Your task to perform on an android device: add a label to a message in the gmail app Image 0: 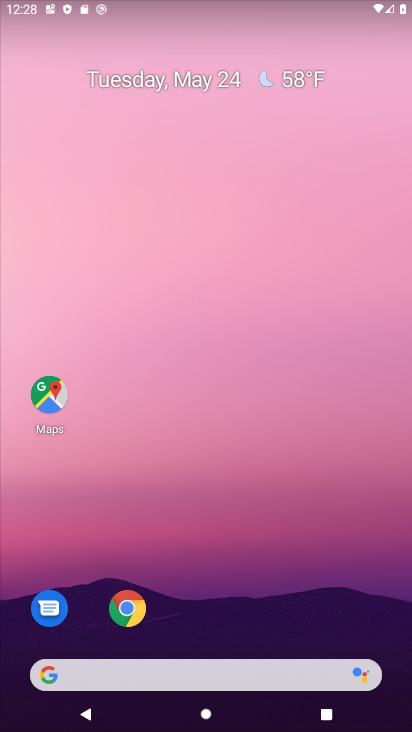
Step 0: press home button
Your task to perform on an android device: add a label to a message in the gmail app Image 1: 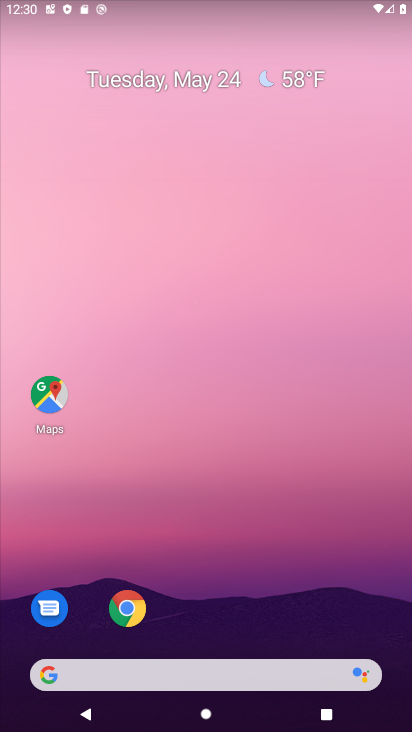
Step 1: drag from (247, 692) to (266, 172)
Your task to perform on an android device: add a label to a message in the gmail app Image 2: 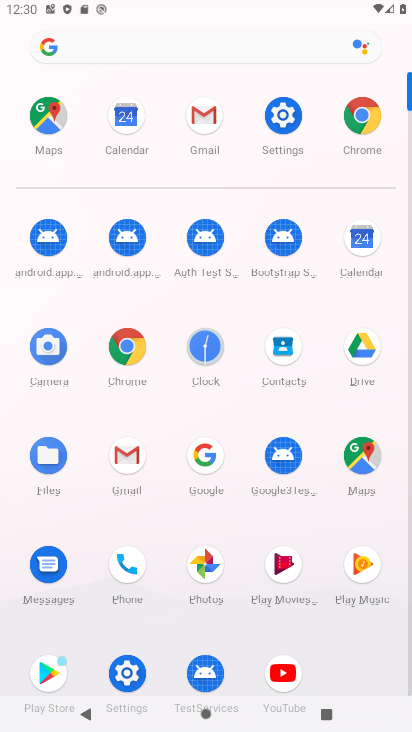
Step 2: click (138, 456)
Your task to perform on an android device: add a label to a message in the gmail app Image 3: 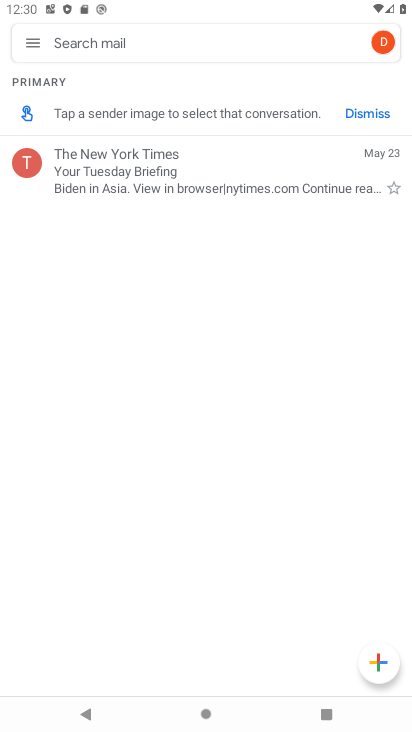
Step 3: click (28, 33)
Your task to perform on an android device: add a label to a message in the gmail app Image 4: 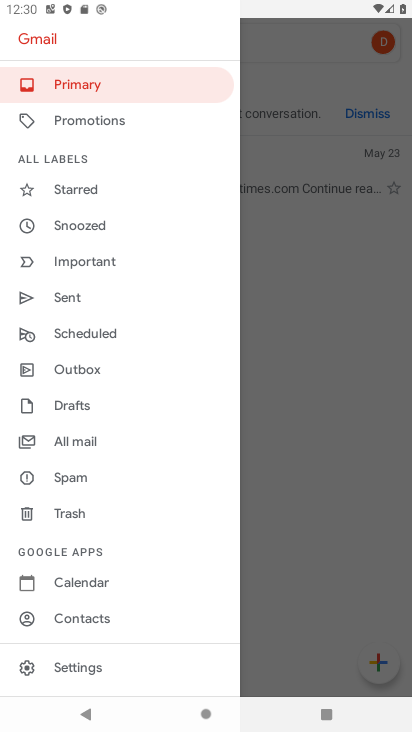
Step 4: click (83, 668)
Your task to perform on an android device: add a label to a message in the gmail app Image 5: 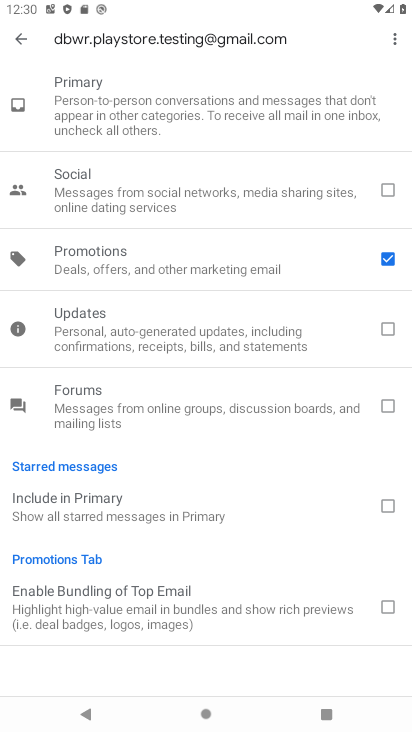
Step 5: click (30, 45)
Your task to perform on an android device: add a label to a message in the gmail app Image 6: 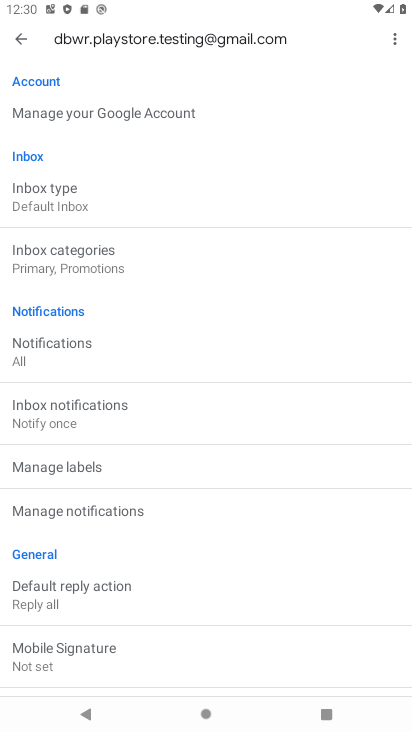
Step 6: click (137, 459)
Your task to perform on an android device: add a label to a message in the gmail app Image 7: 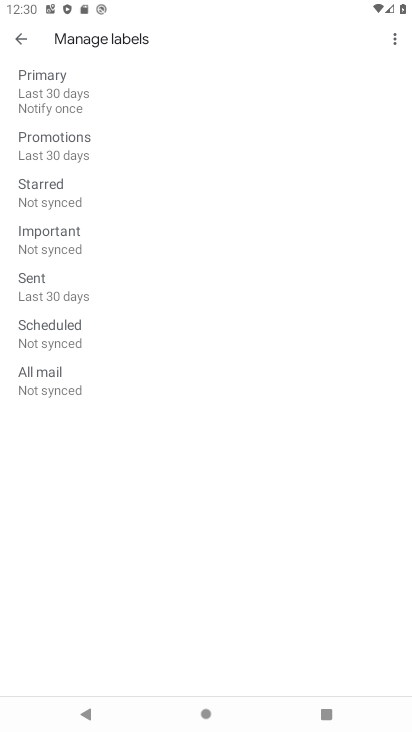
Step 7: click (90, 183)
Your task to perform on an android device: add a label to a message in the gmail app Image 8: 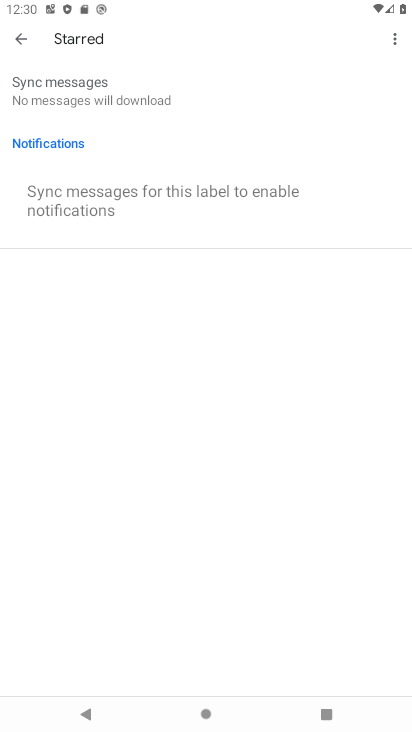
Step 8: task complete